Your task to perform on an android device: change keyboard looks Image 0: 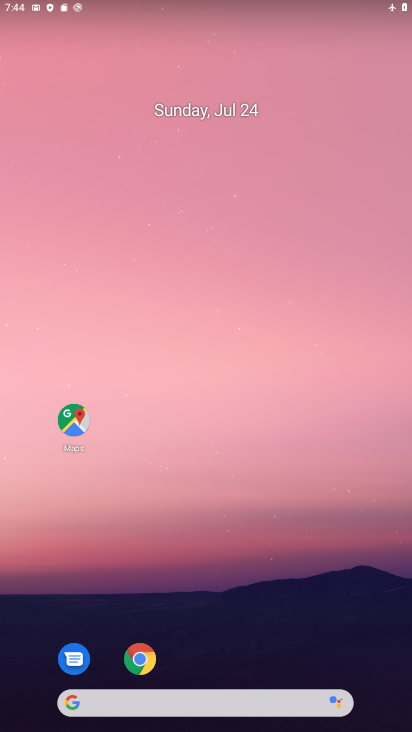
Step 0: drag from (194, 602) to (141, 234)
Your task to perform on an android device: change keyboard looks Image 1: 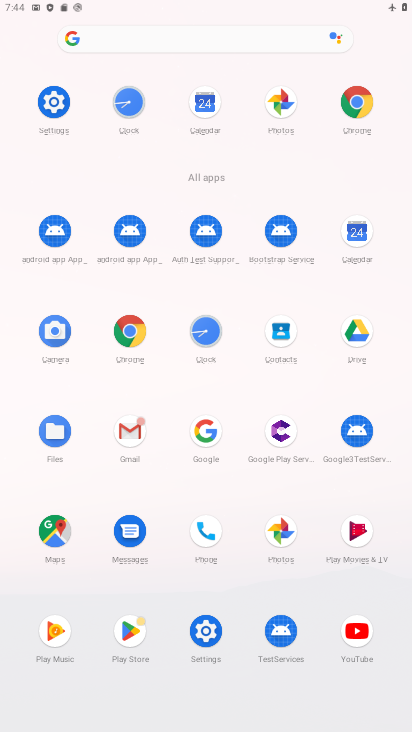
Step 1: click (128, 333)
Your task to perform on an android device: change keyboard looks Image 2: 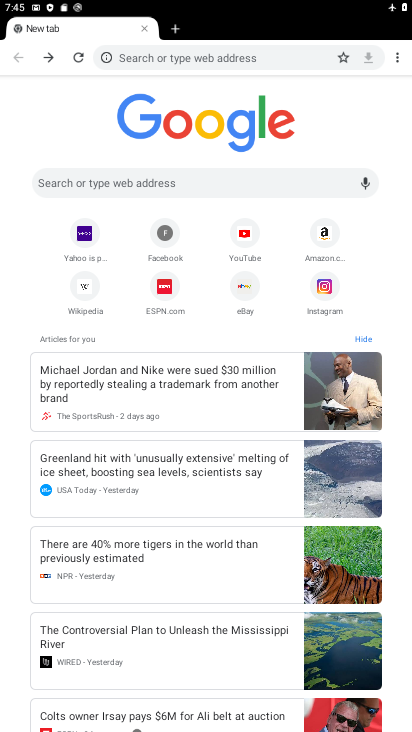
Step 2: press back button
Your task to perform on an android device: change keyboard looks Image 3: 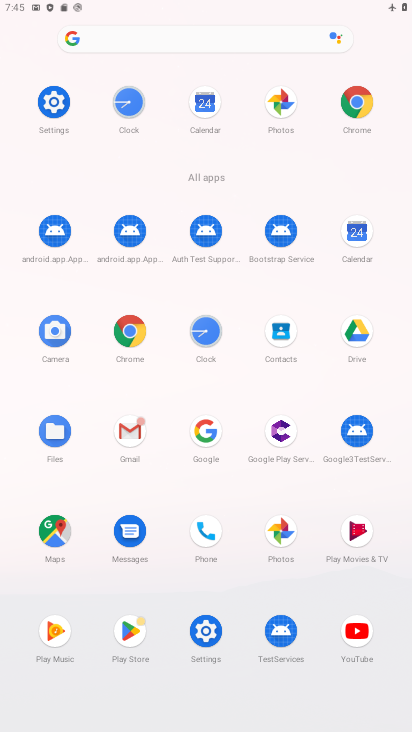
Step 3: click (209, 636)
Your task to perform on an android device: change keyboard looks Image 4: 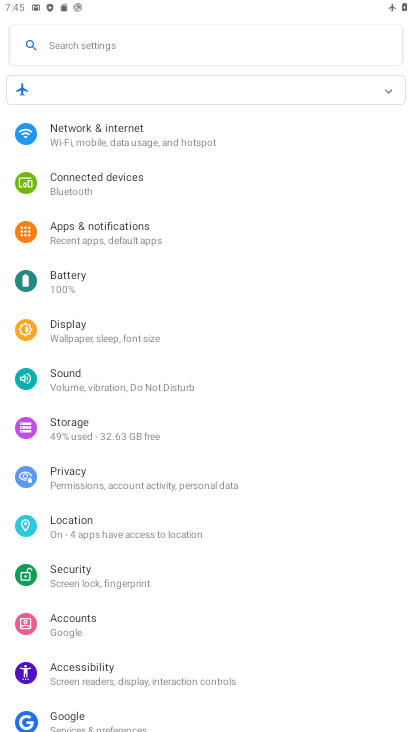
Step 4: drag from (49, 565) to (46, 290)
Your task to perform on an android device: change keyboard looks Image 5: 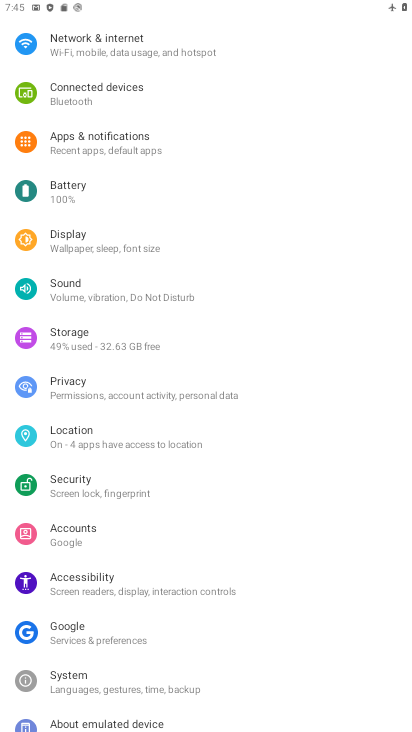
Step 5: drag from (134, 549) to (142, 293)
Your task to perform on an android device: change keyboard looks Image 6: 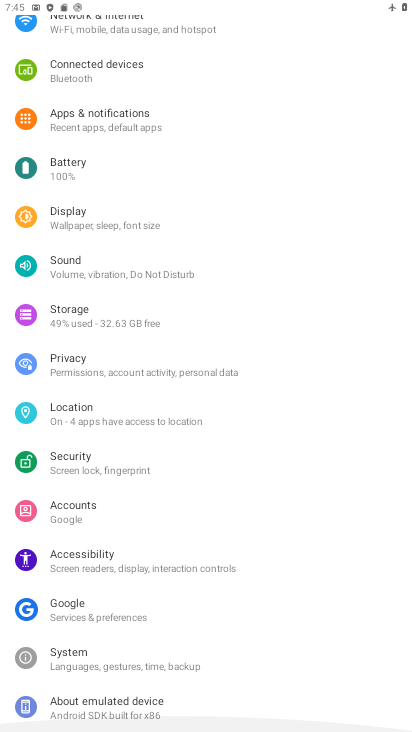
Step 6: click (152, 283)
Your task to perform on an android device: change keyboard looks Image 7: 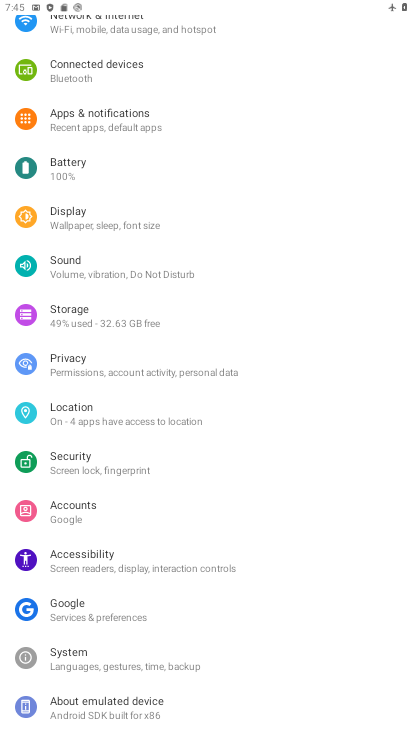
Step 7: click (76, 658)
Your task to perform on an android device: change keyboard looks Image 8: 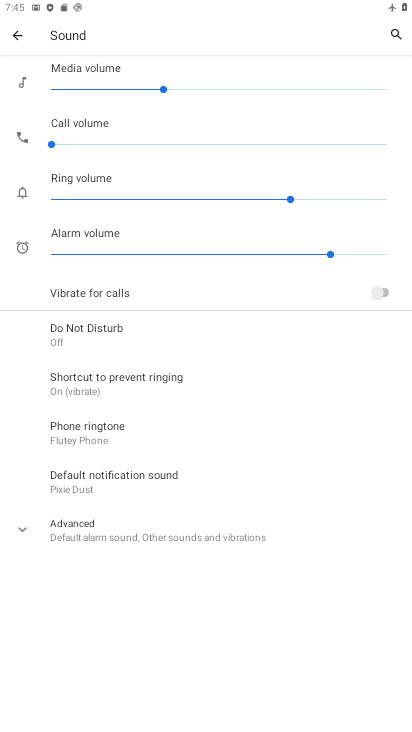
Step 8: click (76, 658)
Your task to perform on an android device: change keyboard looks Image 9: 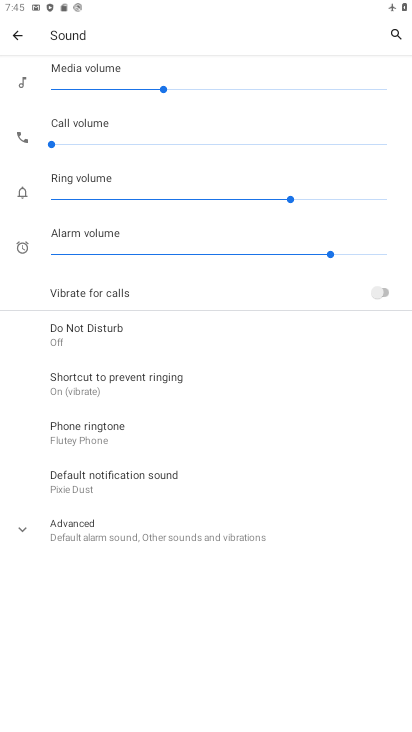
Step 9: click (12, 35)
Your task to perform on an android device: change keyboard looks Image 10: 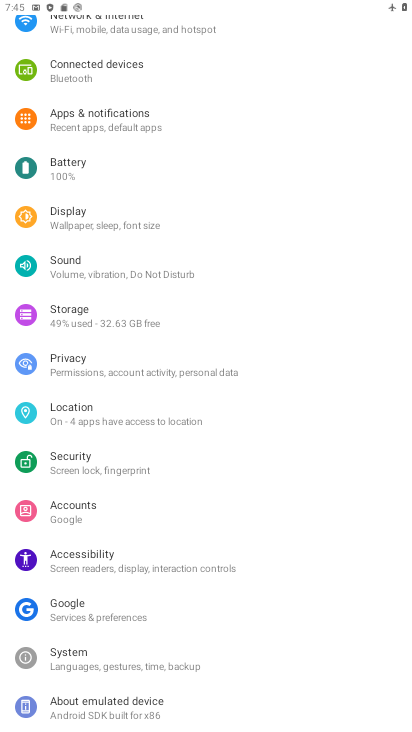
Step 10: click (84, 656)
Your task to perform on an android device: change keyboard looks Image 11: 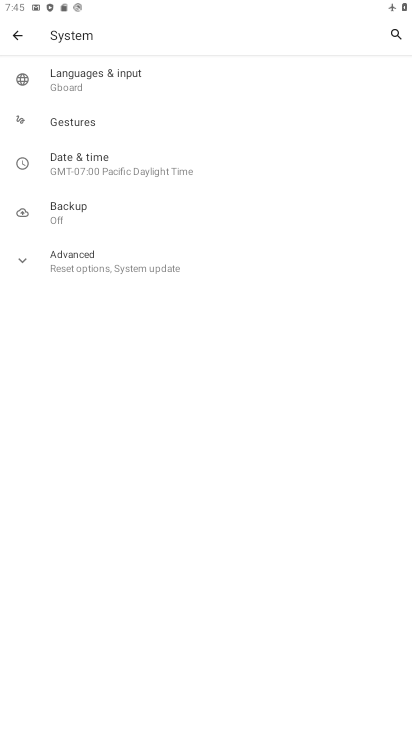
Step 11: click (63, 78)
Your task to perform on an android device: change keyboard looks Image 12: 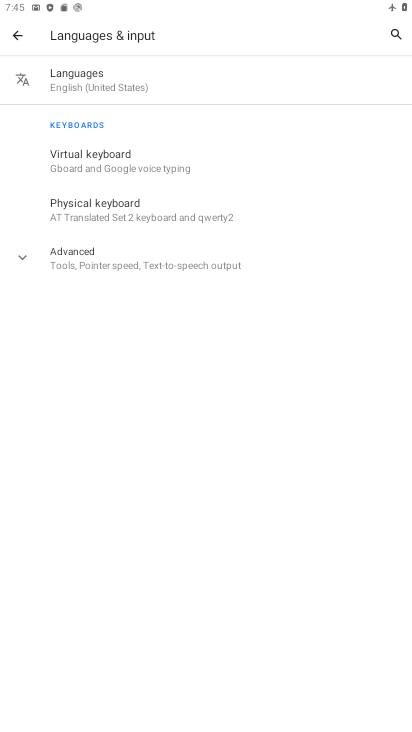
Step 12: click (80, 151)
Your task to perform on an android device: change keyboard looks Image 13: 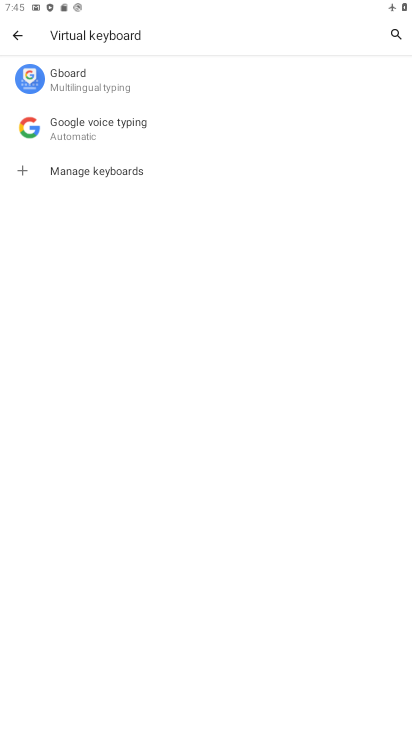
Step 13: click (71, 86)
Your task to perform on an android device: change keyboard looks Image 14: 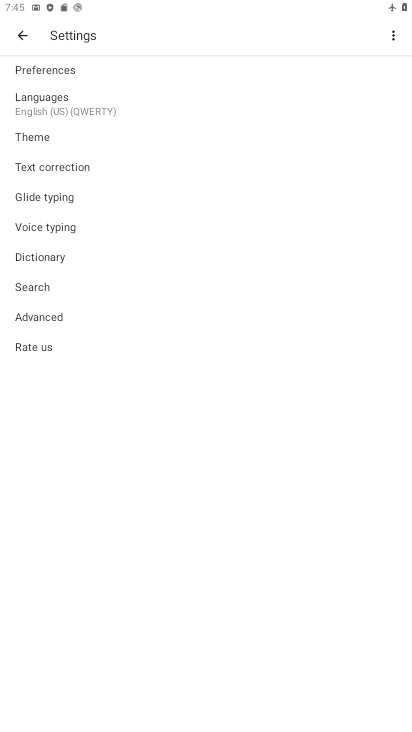
Step 14: click (36, 140)
Your task to perform on an android device: change keyboard looks Image 15: 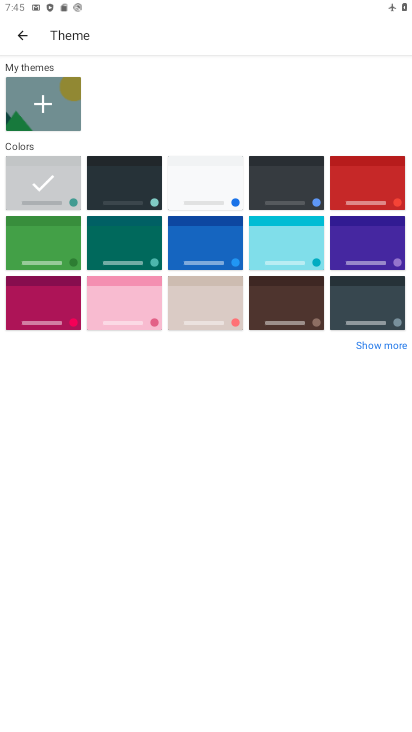
Step 15: click (54, 270)
Your task to perform on an android device: change keyboard looks Image 16: 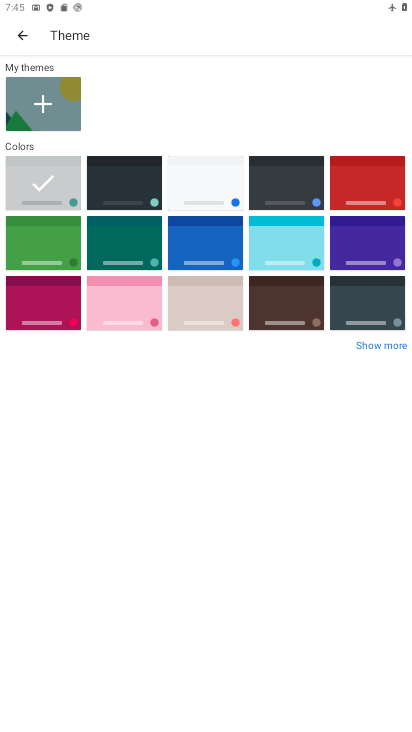
Step 16: click (44, 245)
Your task to perform on an android device: change keyboard looks Image 17: 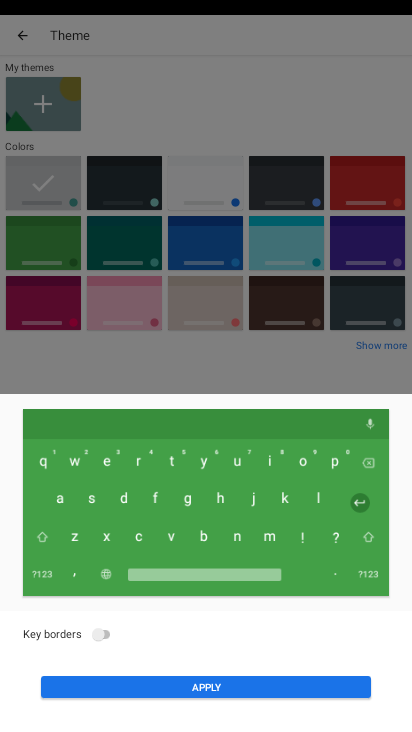
Step 17: task complete